Your task to perform on an android device: open app "Mercado Libre" Image 0: 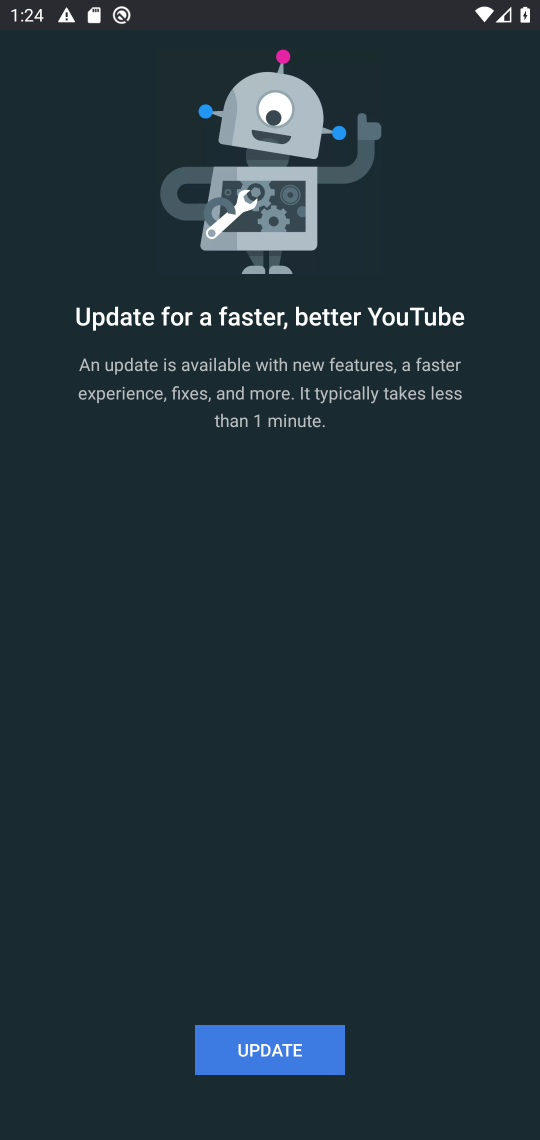
Step 0: press home button
Your task to perform on an android device: open app "Mercado Libre" Image 1: 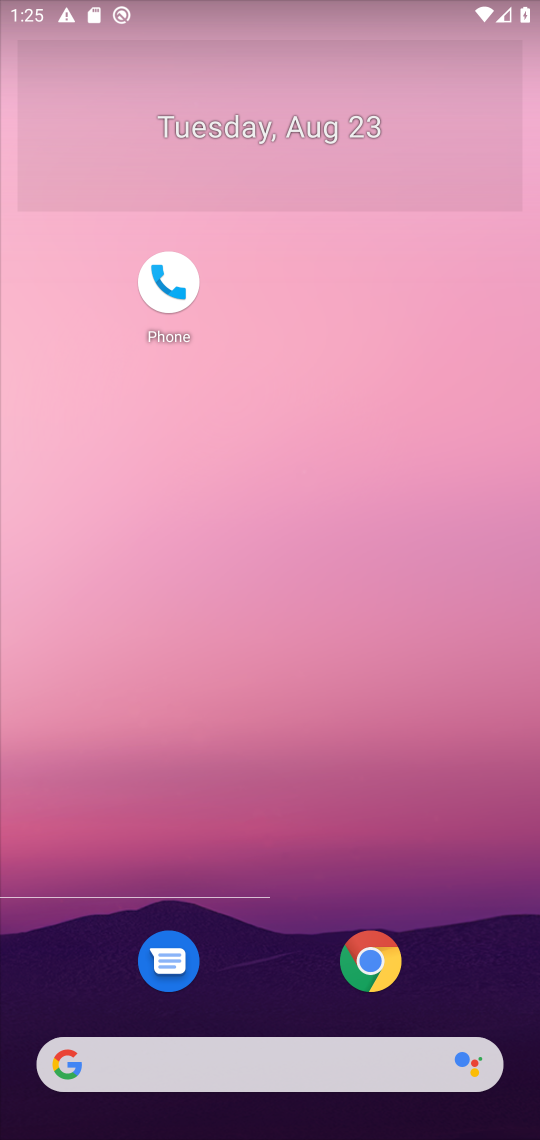
Step 1: task complete